Your task to perform on an android device: Open battery settings Image 0: 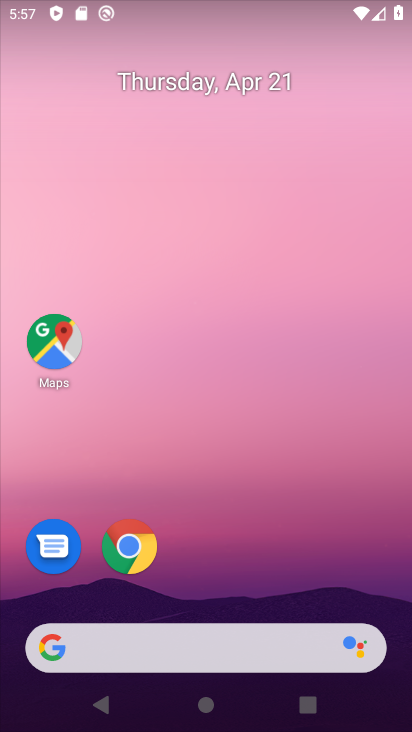
Step 0: drag from (271, 539) to (223, 0)
Your task to perform on an android device: Open battery settings Image 1: 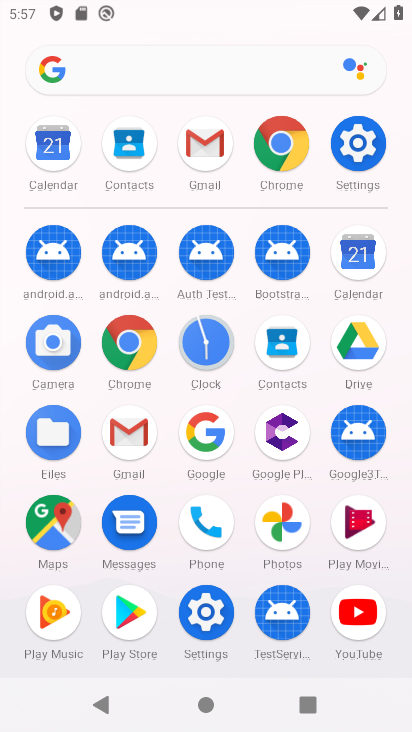
Step 1: click (369, 137)
Your task to perform on an android device: Open battery settings Image 2: 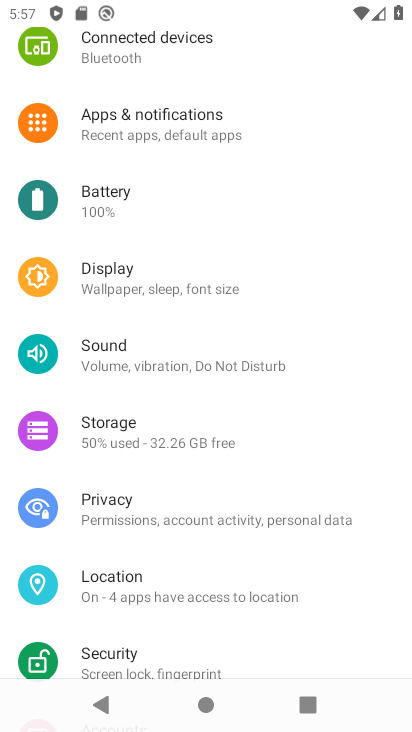
Step 2: click (145, 187)
Your task to perform on an android device: Open battery settings Image 3: 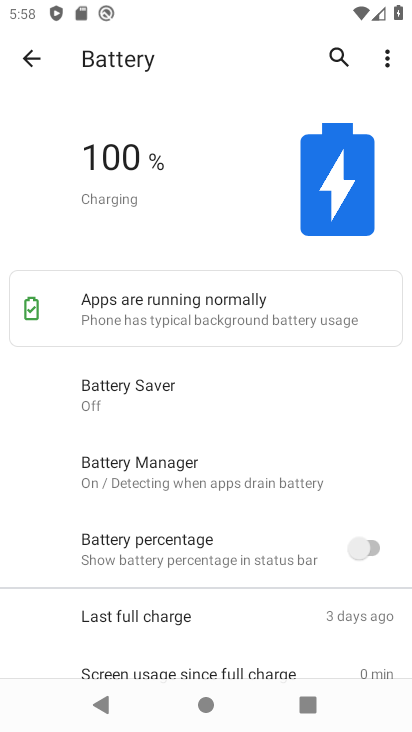
Step 3: task complete